Your task to perform on an android device: change your default location settings in chrome Image 0: 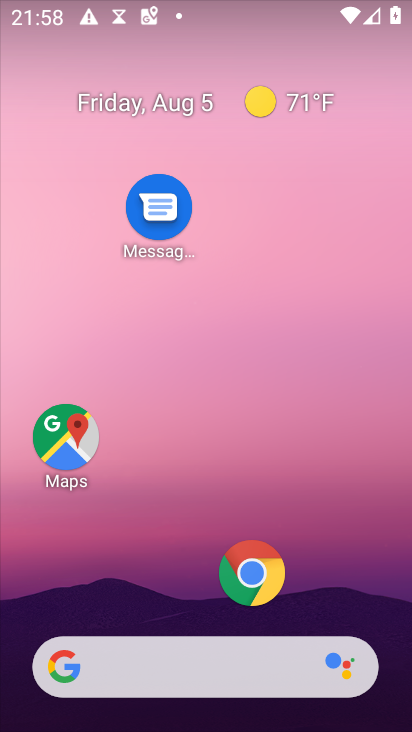
Step 0: press home button
Your task to perform on an android device: change your default location settings in chrome Image 1: 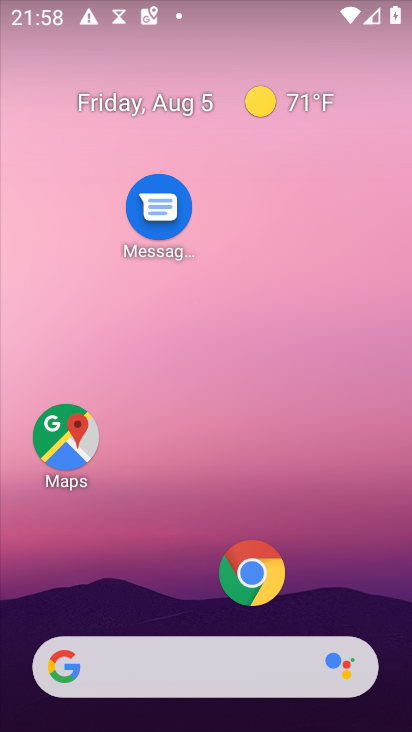
Step 1: click (250, 556)
Your task to perform on an android device: change your default location settings in chrome Image 2: 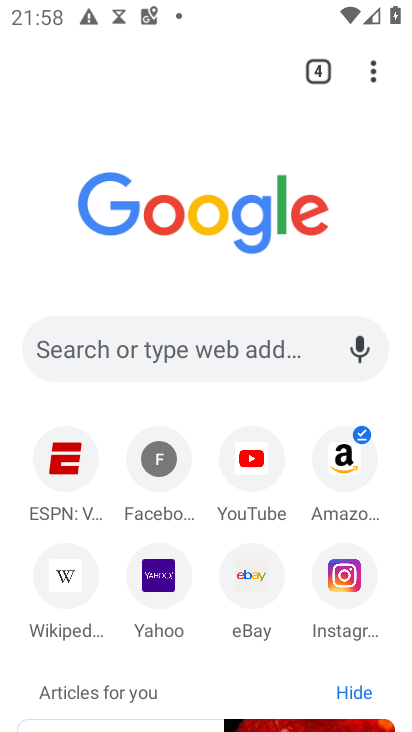
Step 2: click (366, 60)
Your task to perform on an android device: change your default location settings in chrome Image 3: 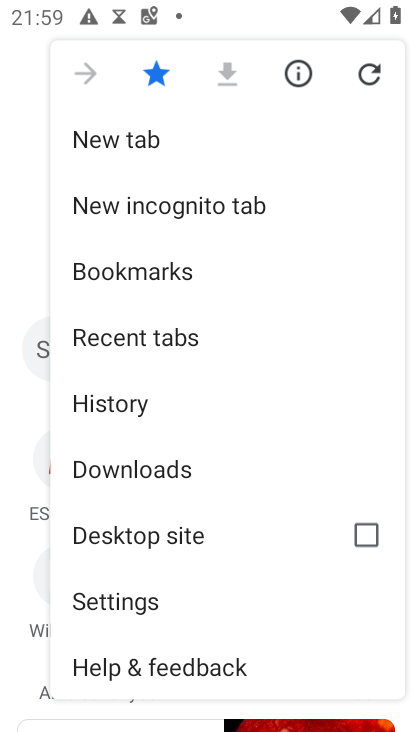
Step 3: click (170, 601)
Your task to perform on an android device: change your default location settings in chrome Image 4: 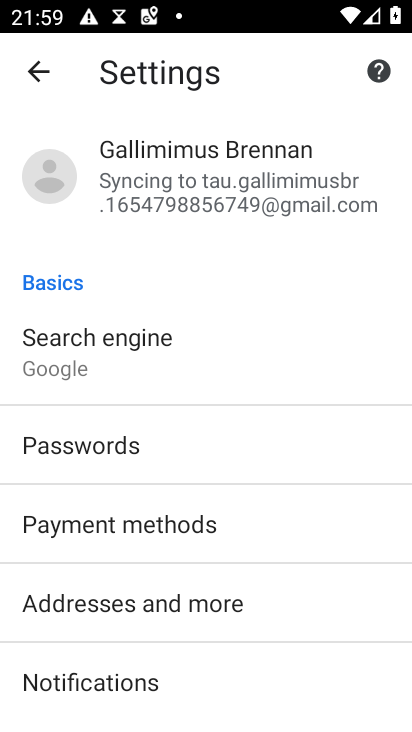
Step 4: drag from (215, 654) to (218, 92)
Your task to perform on an android device: change your default location settings in chrome Image 5: 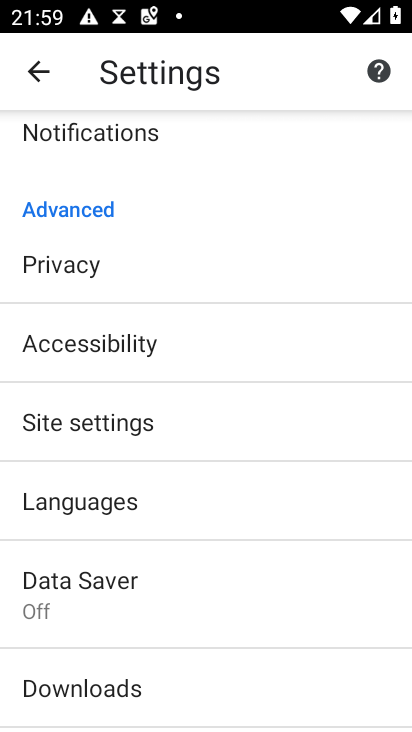
Step 5: drag from (176, 650) to (249, 115)
Your task to perform on an android device: change your default location settings in chrome Image 6: 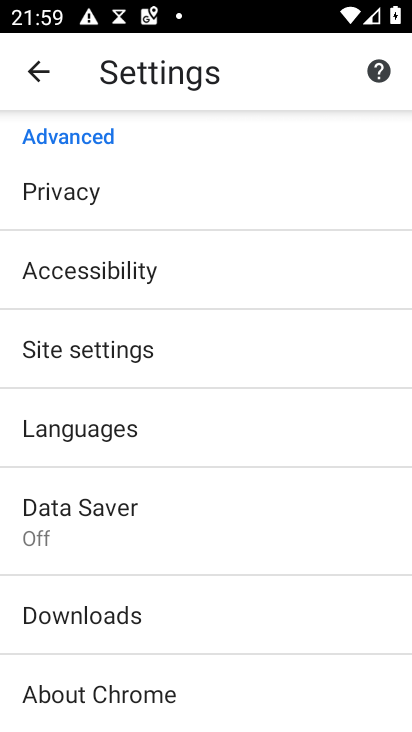
Step 6: drag from (145, 169) to (142, 334)
Your task to perform on an android device: change your default location settings in chrome Image 7: 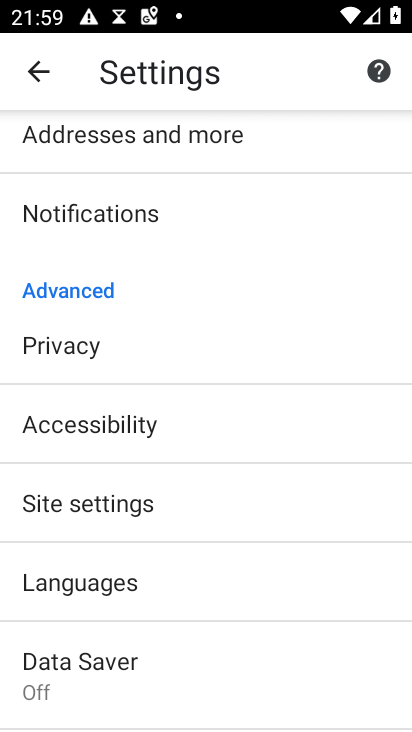
Step 7: click (152, 505)
Your task to perform on an android device: change your default location settings in chrome Image 8: 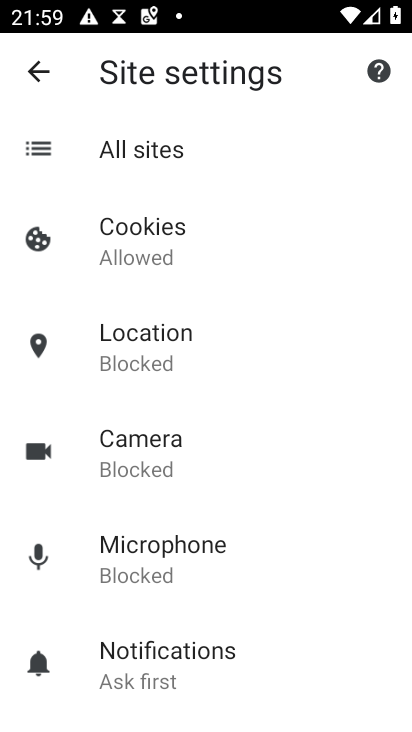
Step 8: click (189, 351)
Your task to perform on an android device: change your default location settings in chrome Image 9: 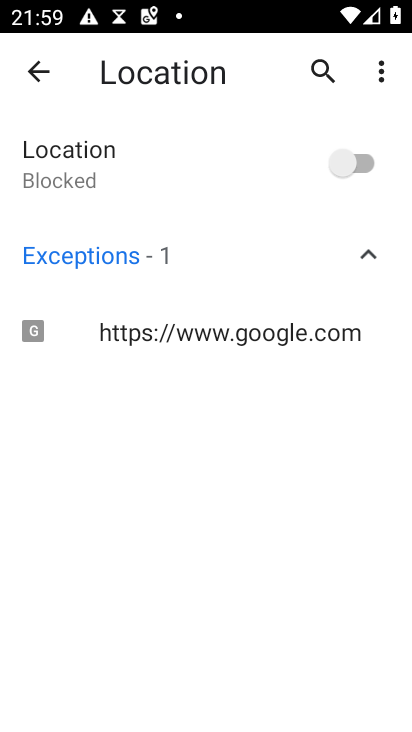
Step 9: click (352, 164)
Your task to perform on an android device: change your default location settings in chrome Image 10: 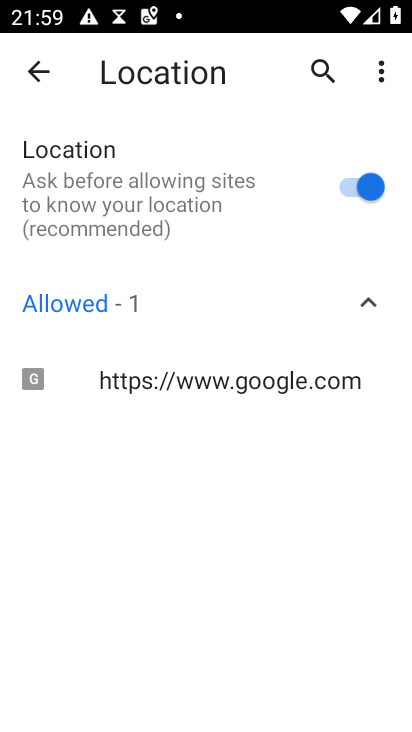
Step 10: task complete